Your task to perform on an android device: open chrome privacy settings Image 0: 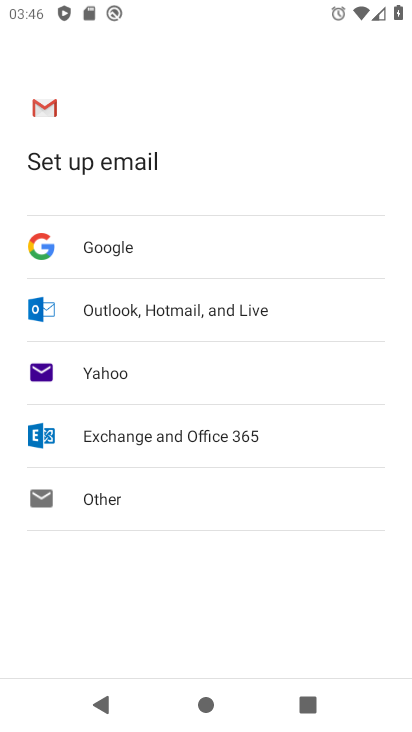
Step 0: press home button
Your task to perform on an android device: open chrome privacy settings Image 1: 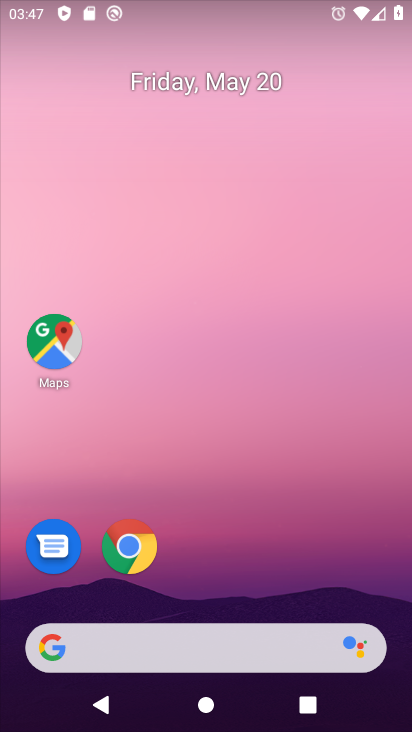
Step 1: drag from (234, 533) to (182, 82)
Your task to perform on an android device: open chrome privacy settings Image 2: 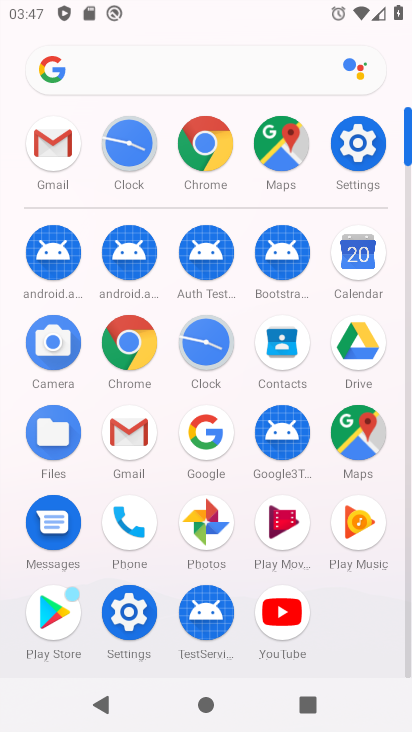
Step 2: click (134, 355)
Your task to perform on an android device: open chrome privacy settings Image 3: 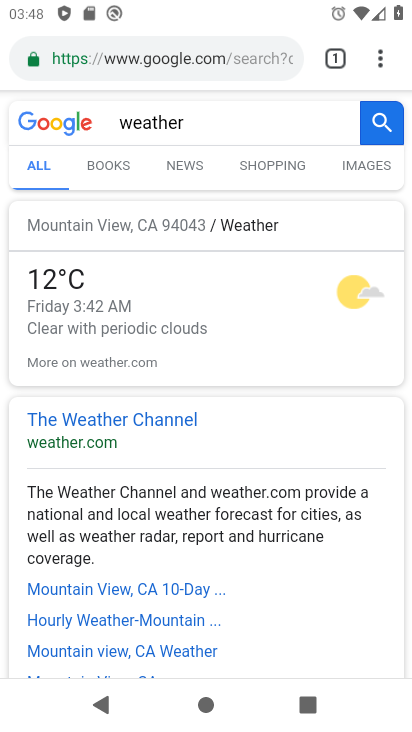
Step 3: drag from (381, 57) to (218, 584)
Your task to perform on an android device: open chrome privacy settings Image 4: 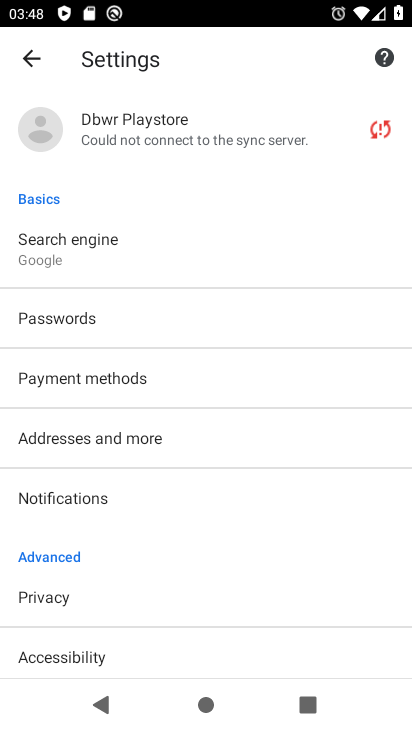
Step 4: drag from (151, 590) to (201, 296)
Your task to perform on an android device: open chrome privacy settings Image 5: 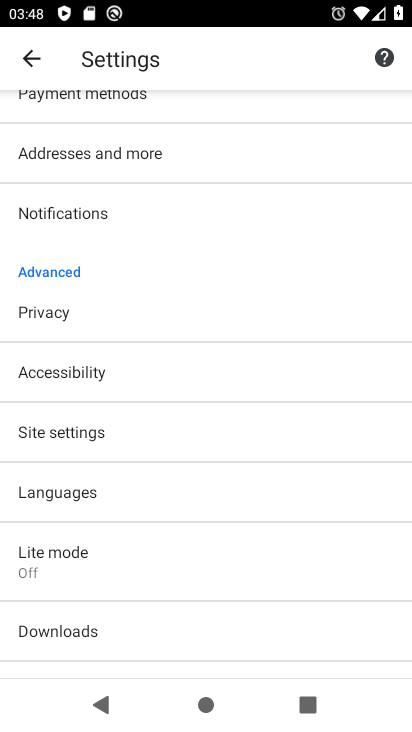
Step 5: click (28, 312)
Your task to perform on an android device: open chrome privacy settings Image 6: 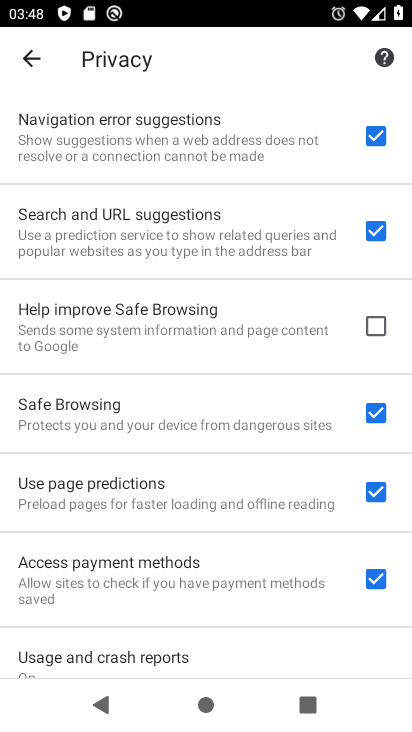
Step 6: task complete